Your task to perform on an android device: Go to eBay Image 0: 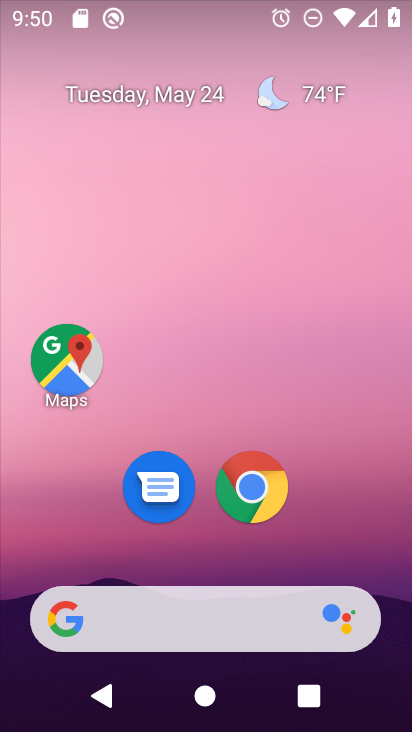
Step 0: click (257, 496)
Your task to perform on an android device: Go to eBay Image 1: 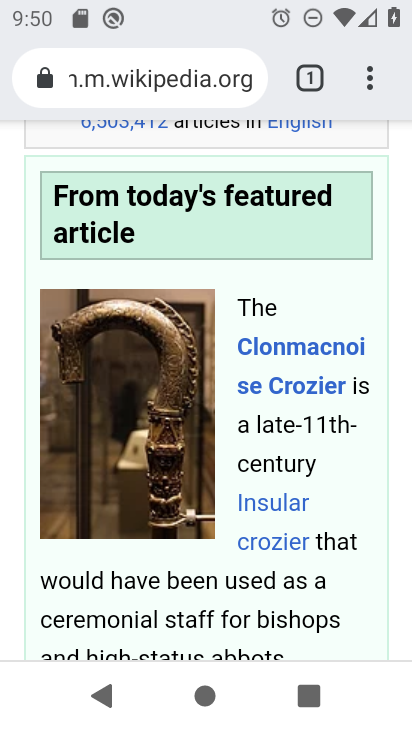
Step 1: click (111, 85)
Your task to perform on an android device: Go to eBay Image 2: 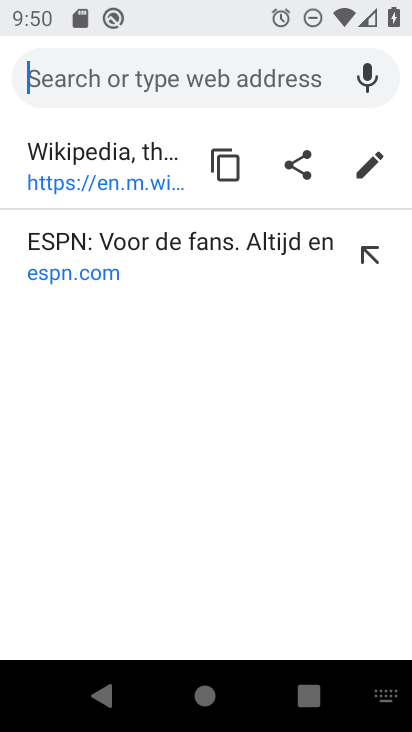
Step 2: type "ebay"
Your task to perform on an android device: Go to eBay Image 3: 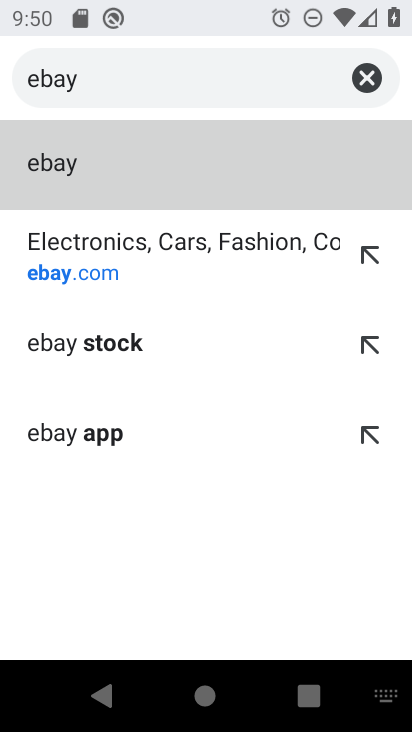
Step 3: click (103, 262)
Your task to perform on an android device: Go to eBay Image 4: 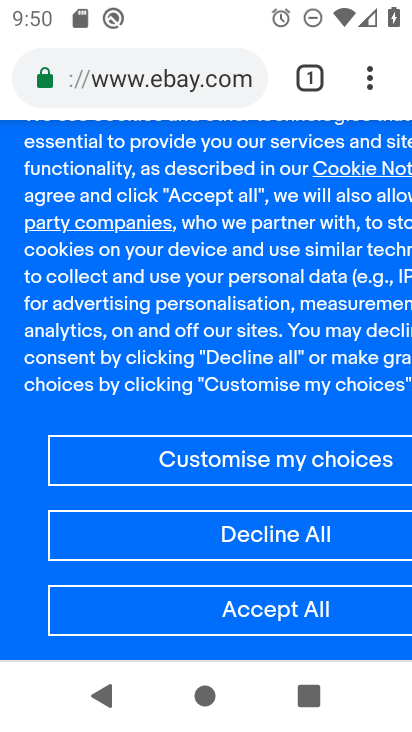
Step 4: task complete